Your task to perform on an android device: turn off location history Image 0: 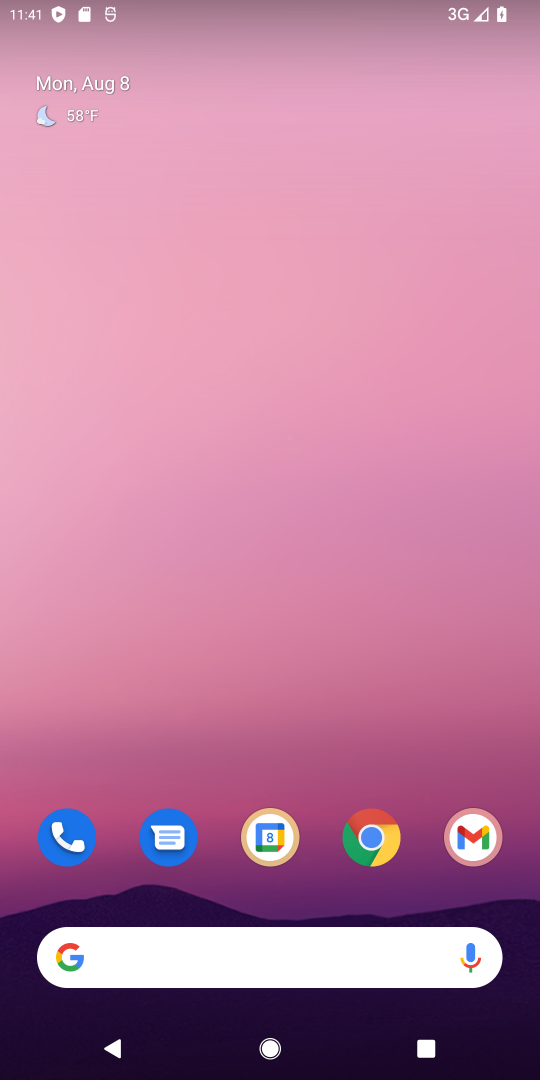
Step 0: drag from (482, 613) to (444, 160)
Your task to perform on an android device: turn off location history Image 1: 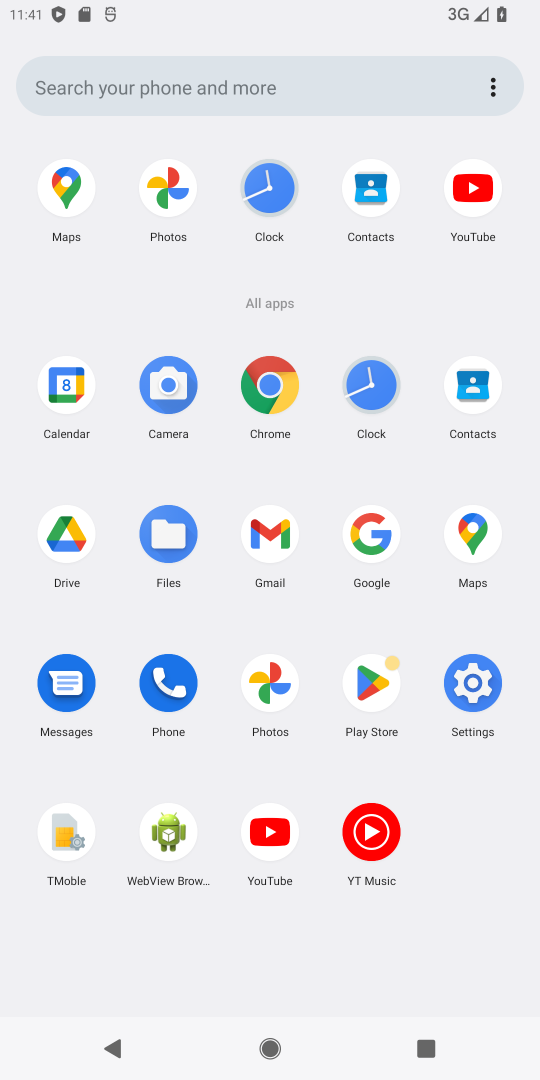
Step 1: click (475, 683)
Your task to perform on an android device: turn off location history Image 2: 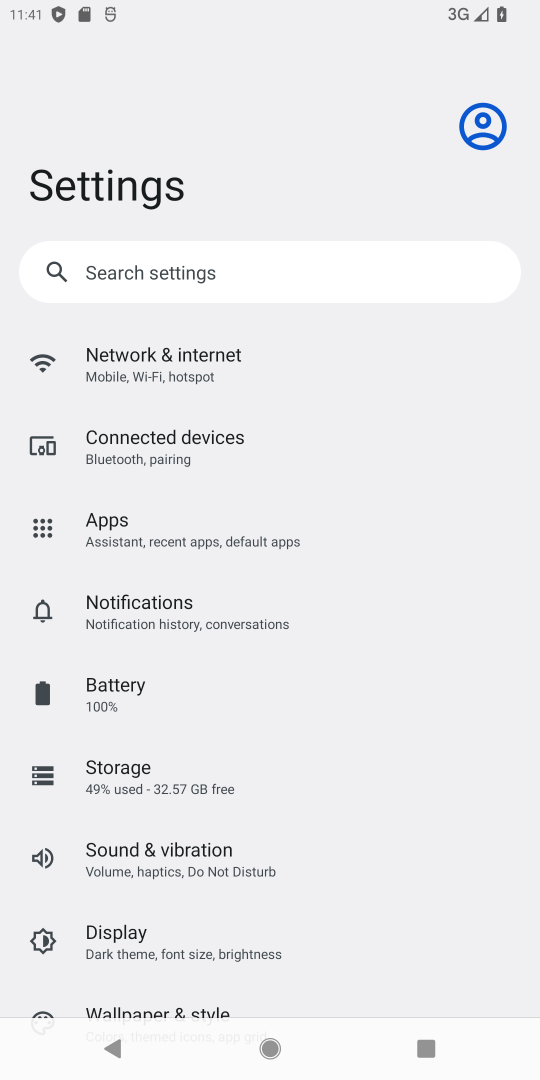
Step 2: drag from (330, 970) to (333, 480)
Your task to perform on an android device: turn off location history Image 3: 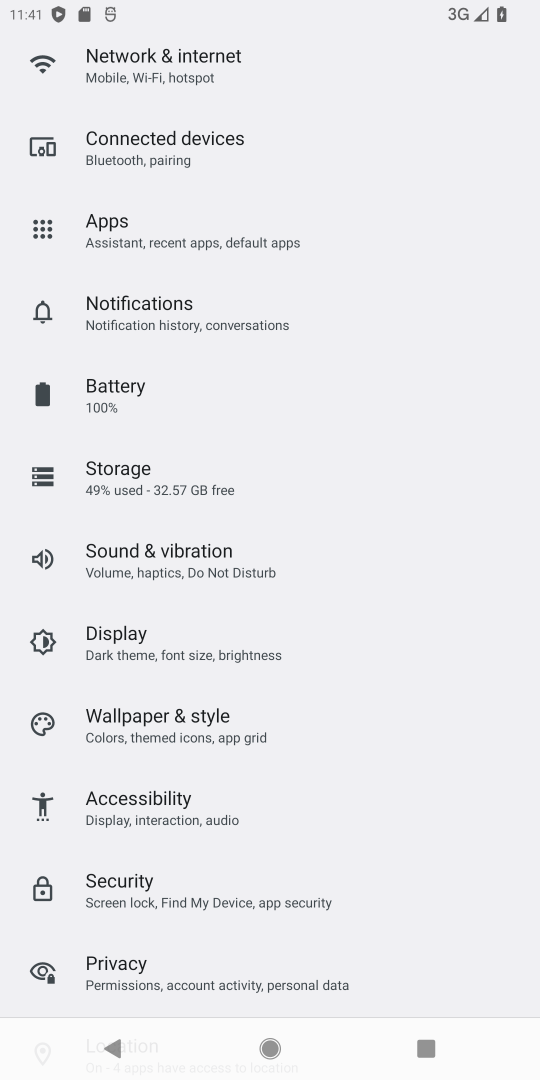
Step 3: drag from (348, 744) to (351, 497)
Your task to perform on an android device: turn off location history Image 4: 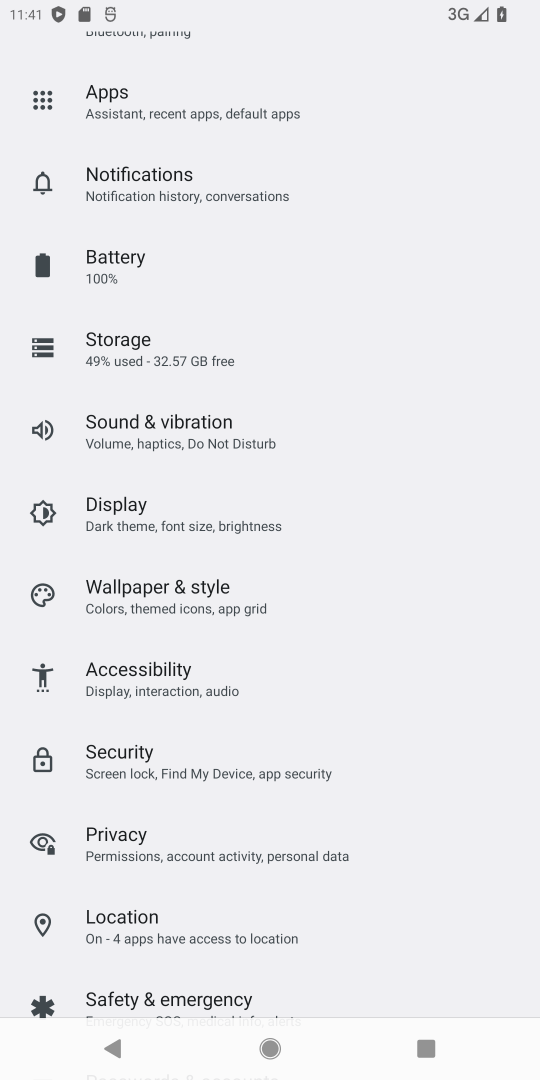
Step 4: click (116, 930)
Your task to perform on an android device: turn off location history Image 5: 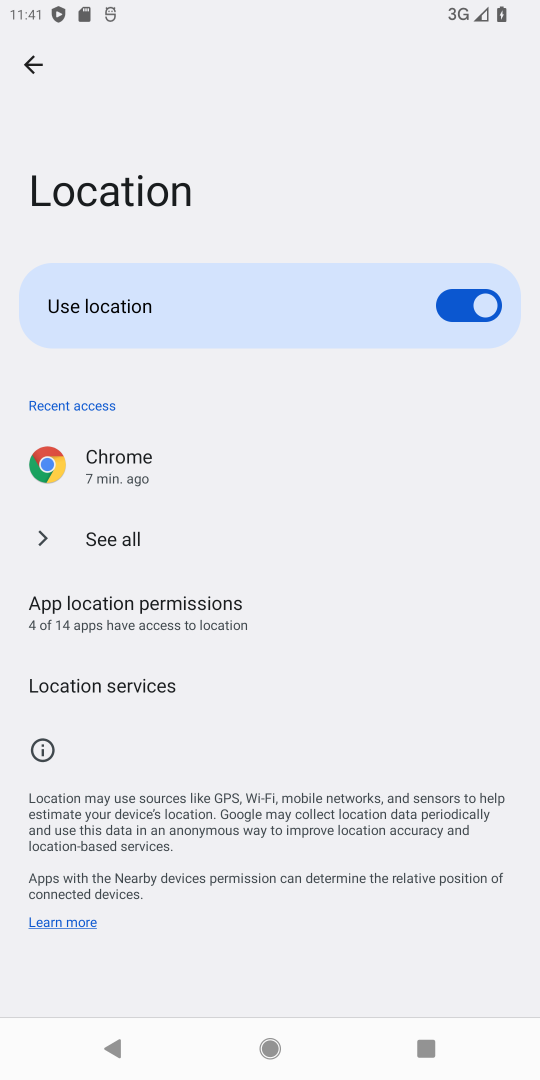
Step 5: drag from (353, 963) to (377, 415)
Your task to perform on an android device: turn off location history Image 6: 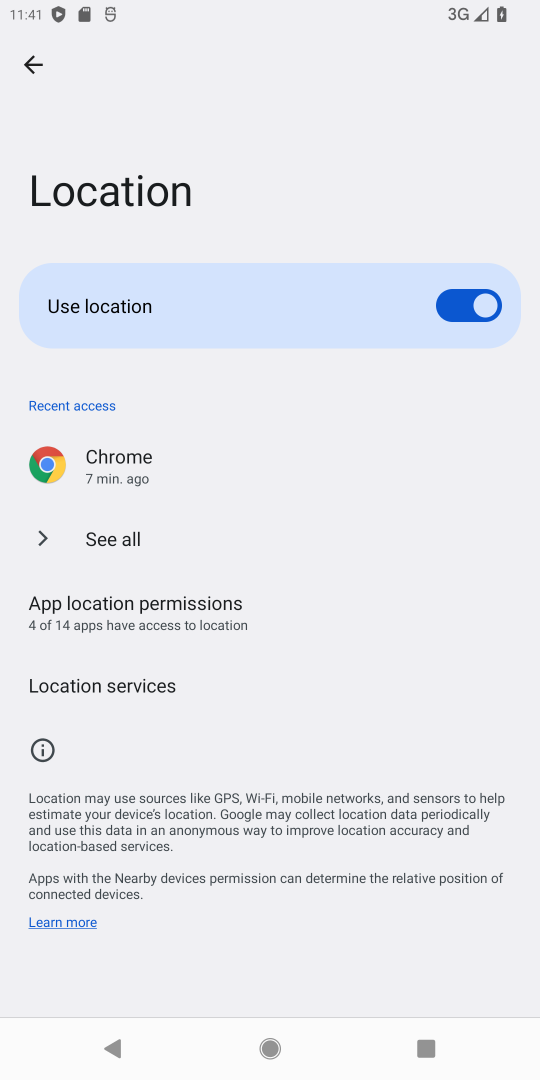
Step 6: drag from (301, 724) to (273, 523)
Your task to perform on an android device: turn off location history Image 7: 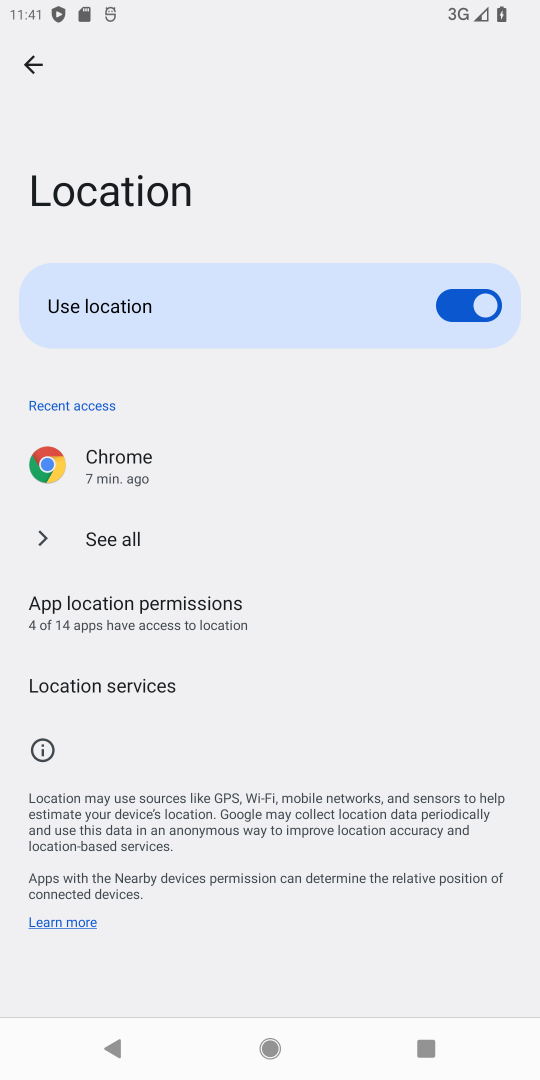
Step 7: click (126, 531)
Your task to perform on an android device: turn off location history Image 8: 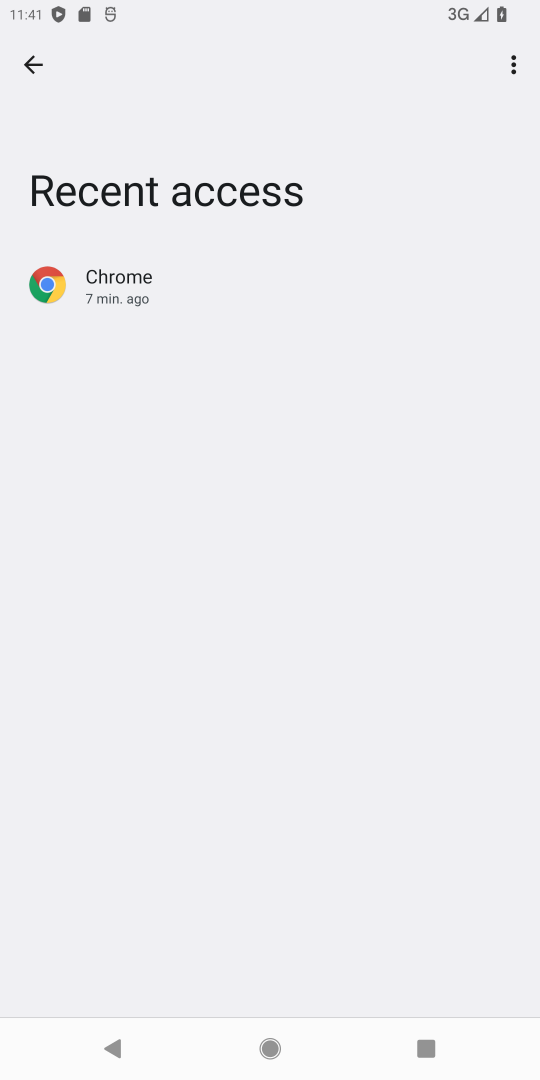
Step 8: click (112, 272)
Your task to perform on an android device: turn off location history Image 9: 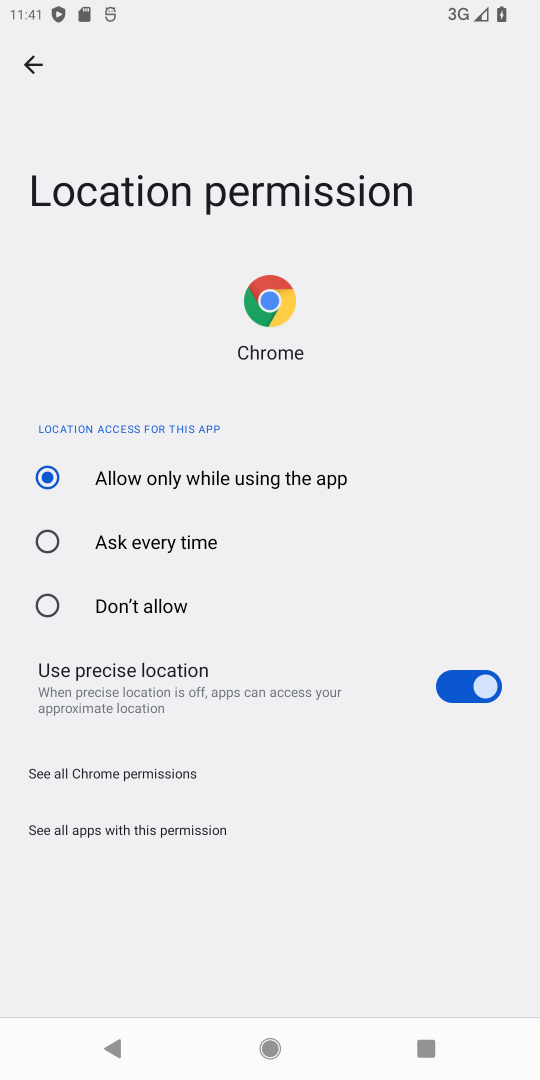
Step 9: task complete